Your task to perform on an android device: turn off sleep mode Image 0: 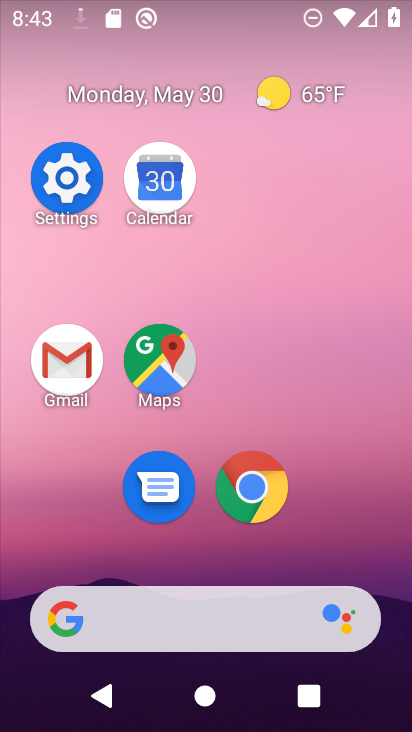
Step 0: click (78, 170)
Your task to perform on an android device: turn off sleep mode Image 1: 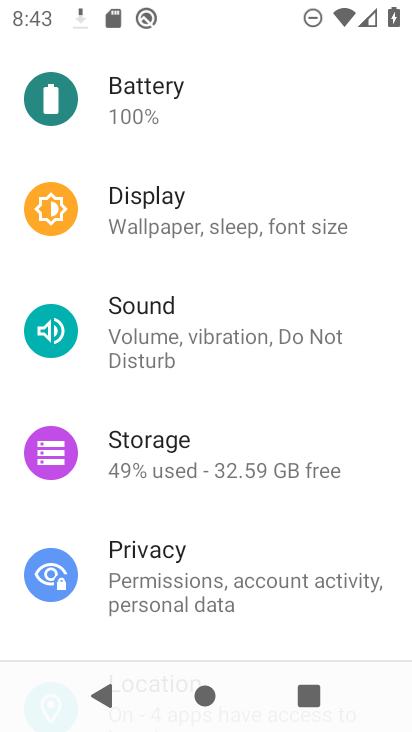
Step 1: click (250, 195)
Your task to perform on an android device: turn off sleep mode Image 2: 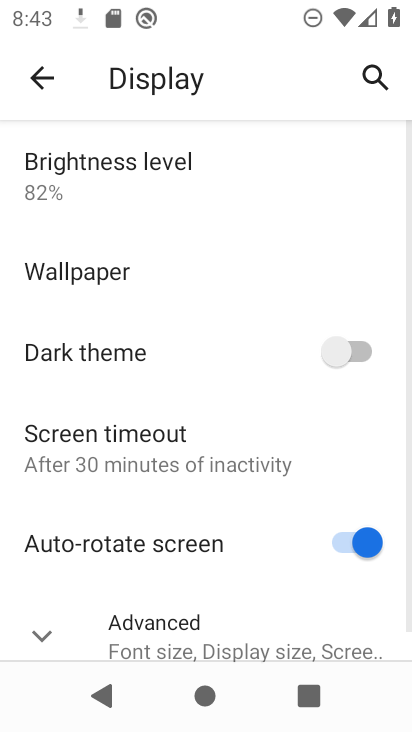
Step 2: click (203, 437)
Your task to perform on an android device: turn off sleep mode Image 3: 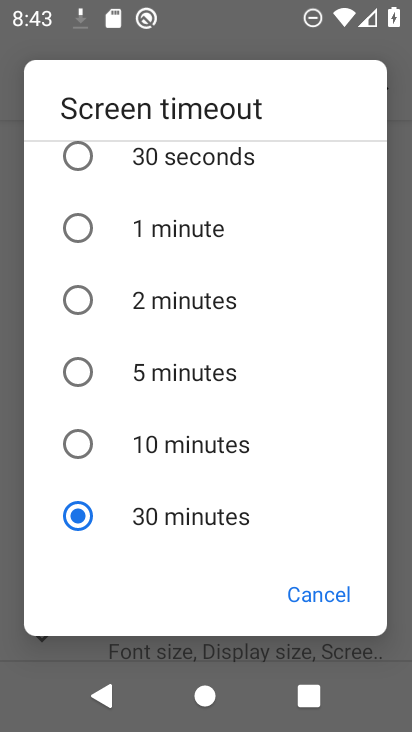
Step 3: task complete